Your task to perform on an android device: turn on airplane mode Image 0: 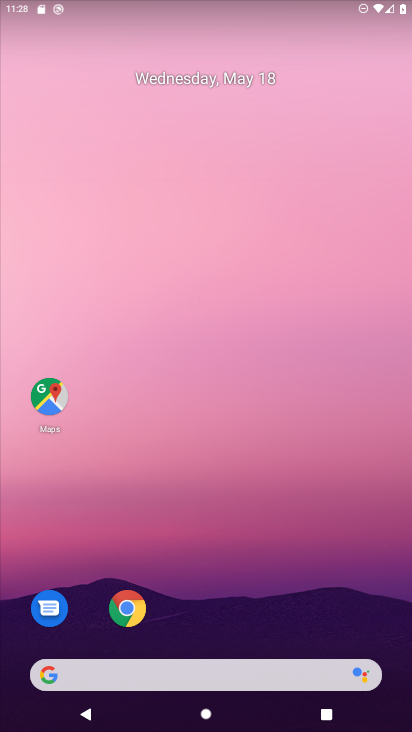
Step 0: drag from (241, 617) to (169, 85)
Your task to perform on an android device: turn on airplane mode Image 1: 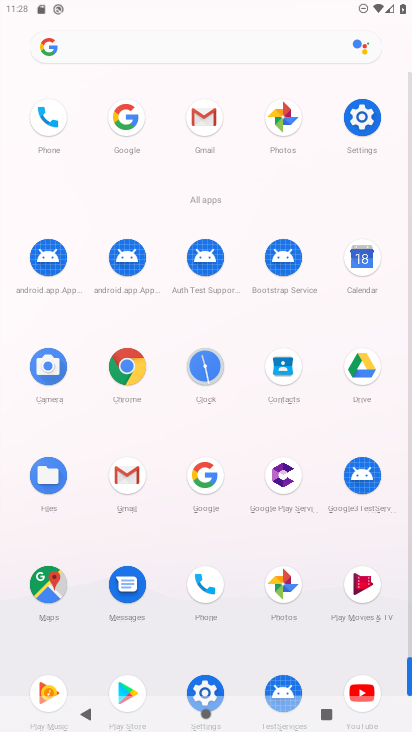
Step 1: click (364, 115)
Your task to perform on an android device: turn on airplane mode Image 2: 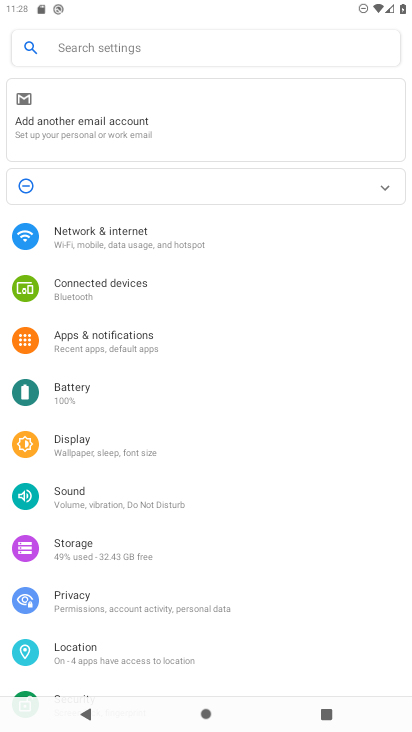
Step 2: click (100, 237)
Your task to perform on an android device: turn on airplane mode Image 3: 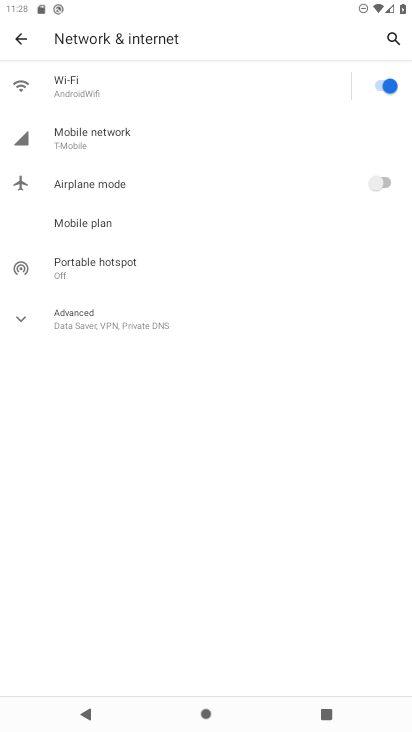
Step 3: click (375, 171)
Your task to perform on an android device: turn on airplane mode Image 4: 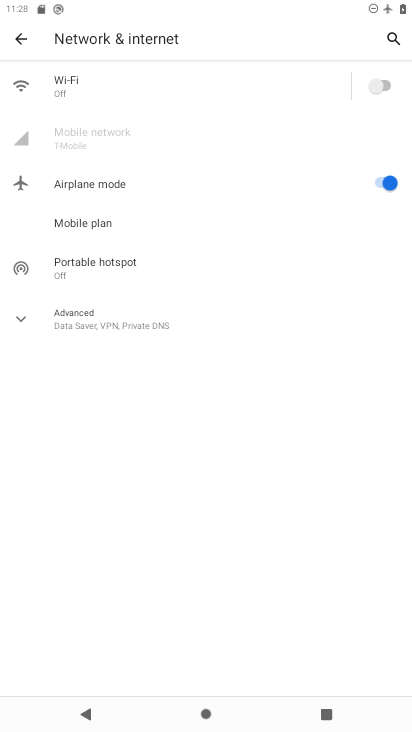
Step 4: task complete